Your task to perform on an android device: Go to CNN.com Image 0: 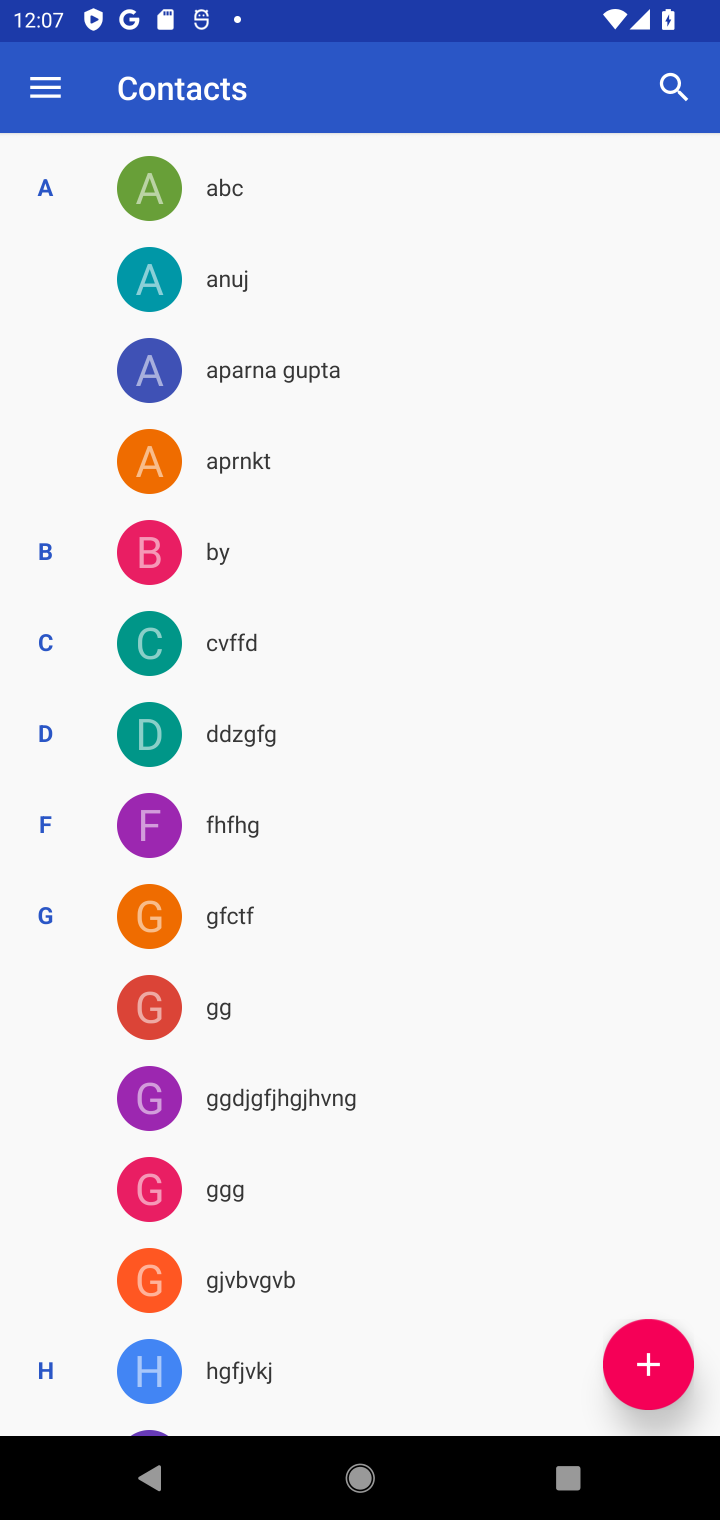
Step 0: press home button
Your task to perform on an android device: Go to CNN.com Image 1: 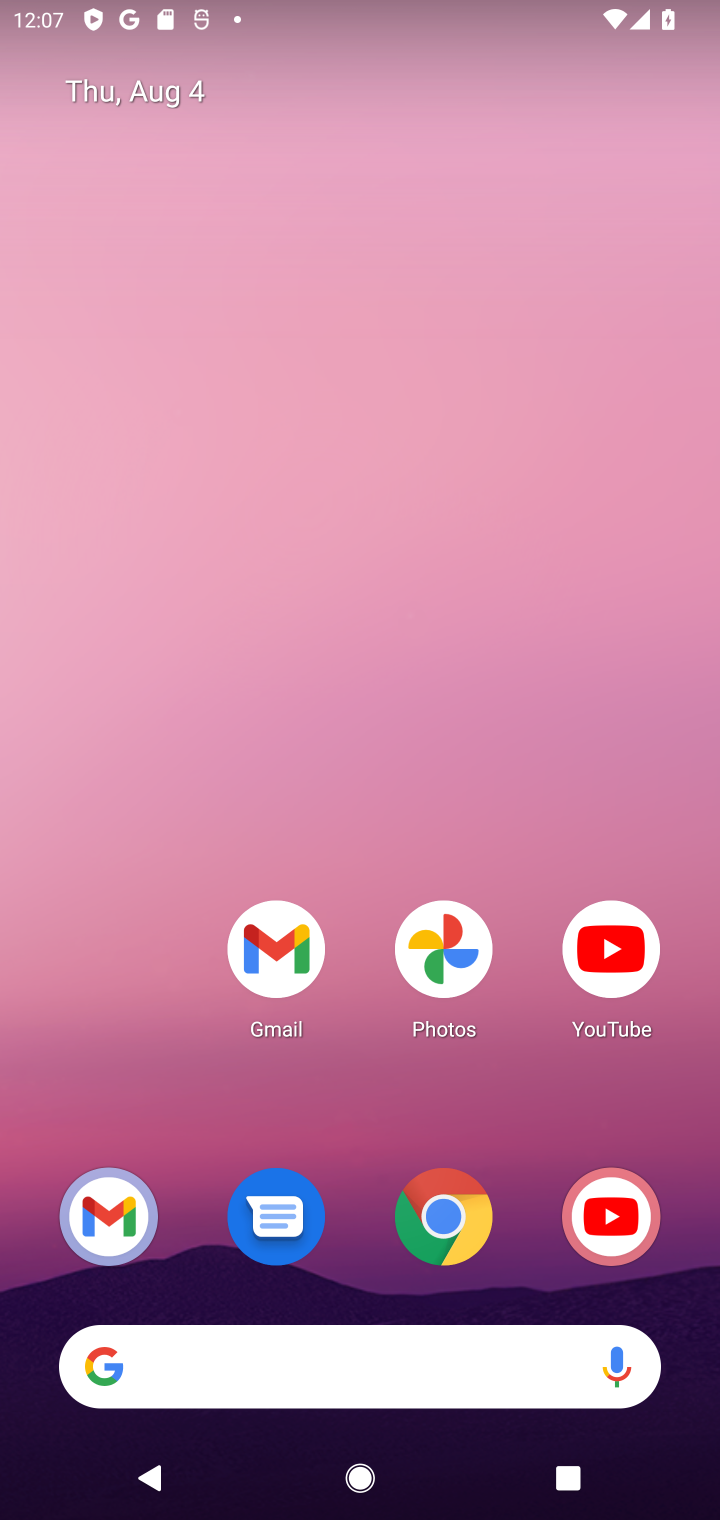
Step 1: drag from (138, 1045) to (116, 560)
Your task to perform on an android device: Go to CNN.com Image 2: 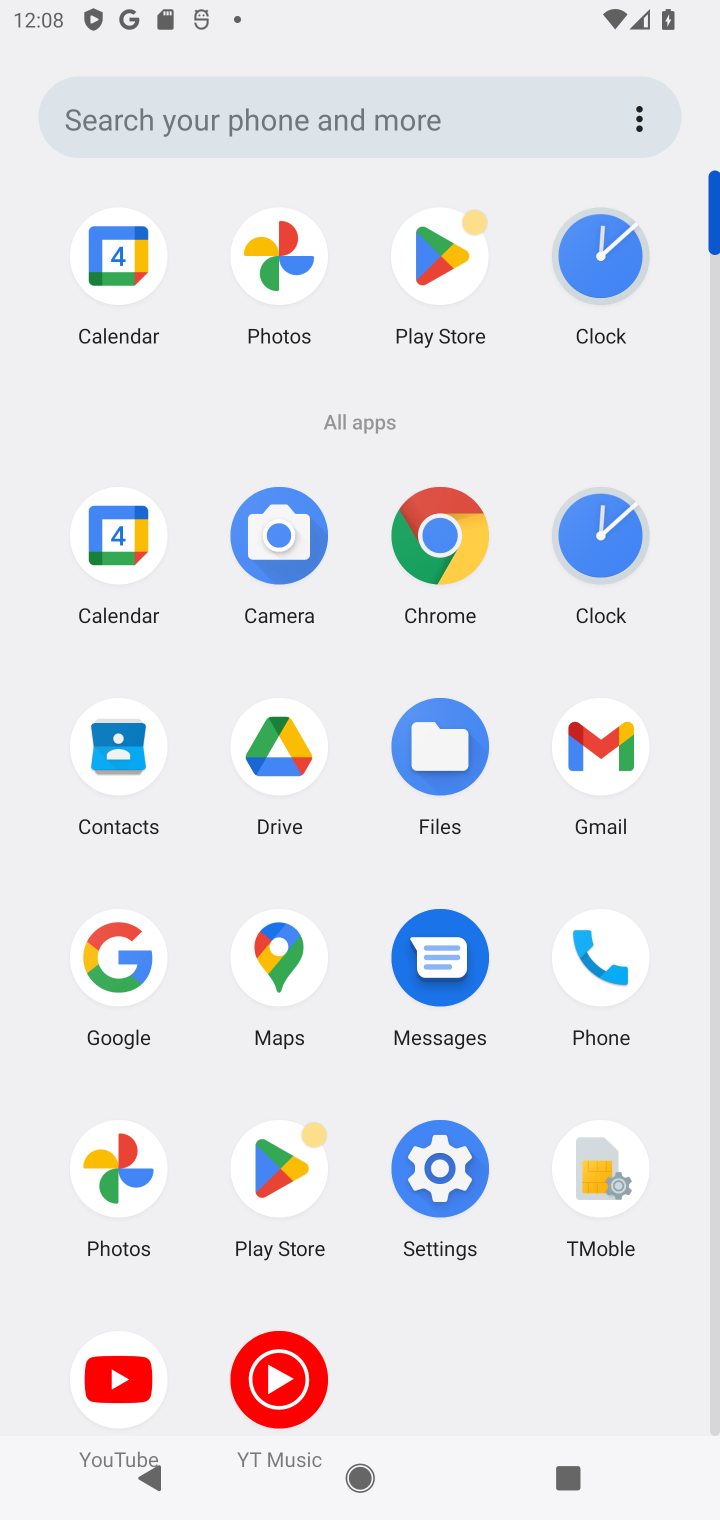
Step 2: click (437, 545)
Your task to perform on an android device: Go to CNN.com Image 3: 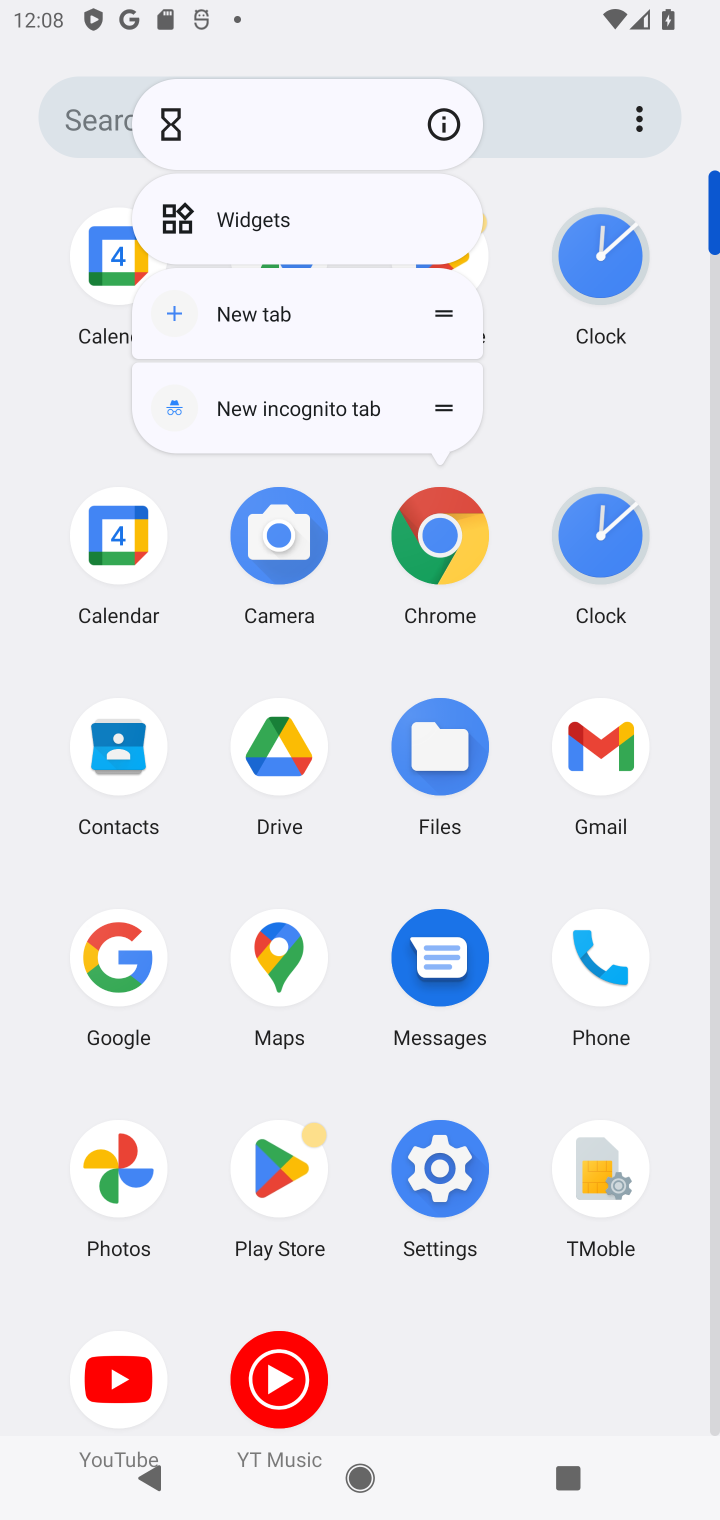
Step 3: click (110, 940)
Your task to perform on an android device: Go to CNN.com Image 4: 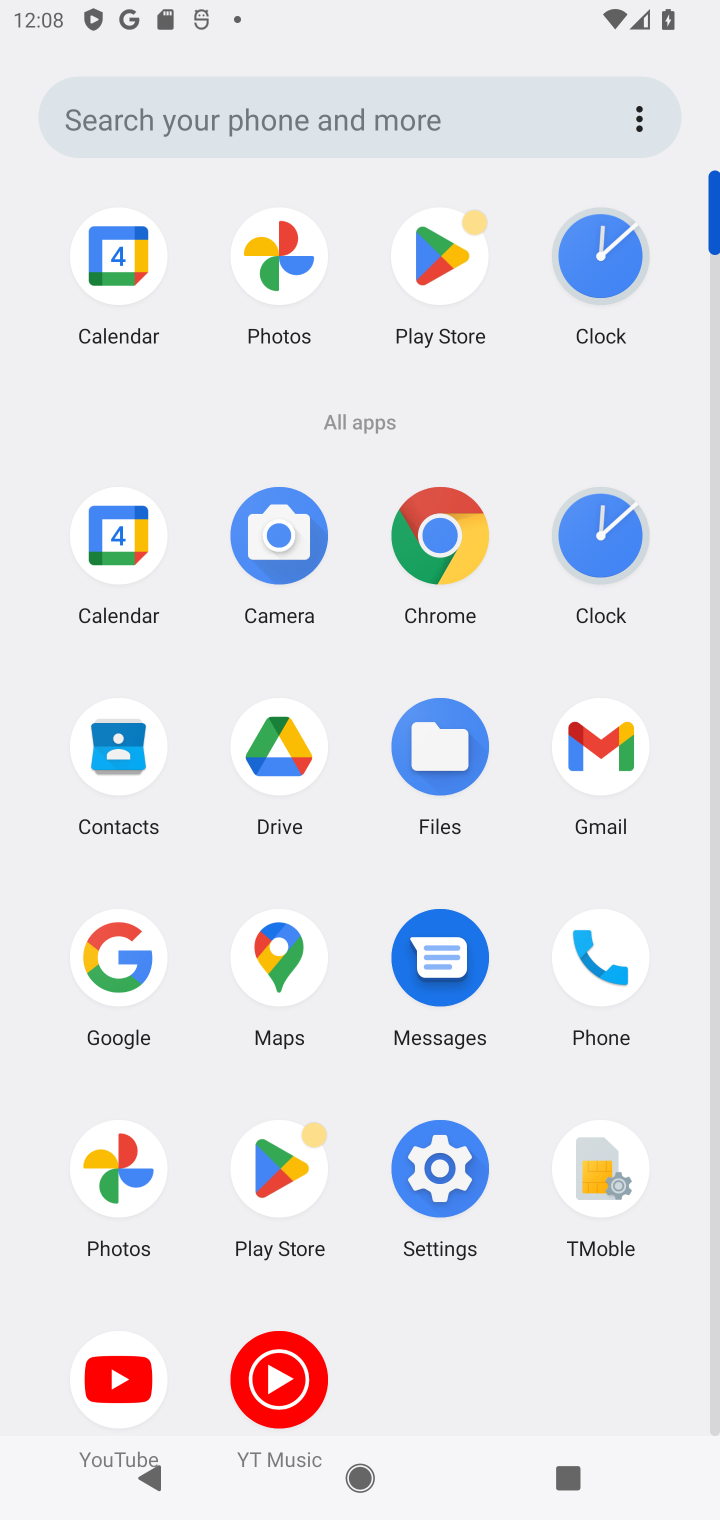
Step 4: click (100, 957)
Your task to perform on an android device: Go to CNN.com Image 5: 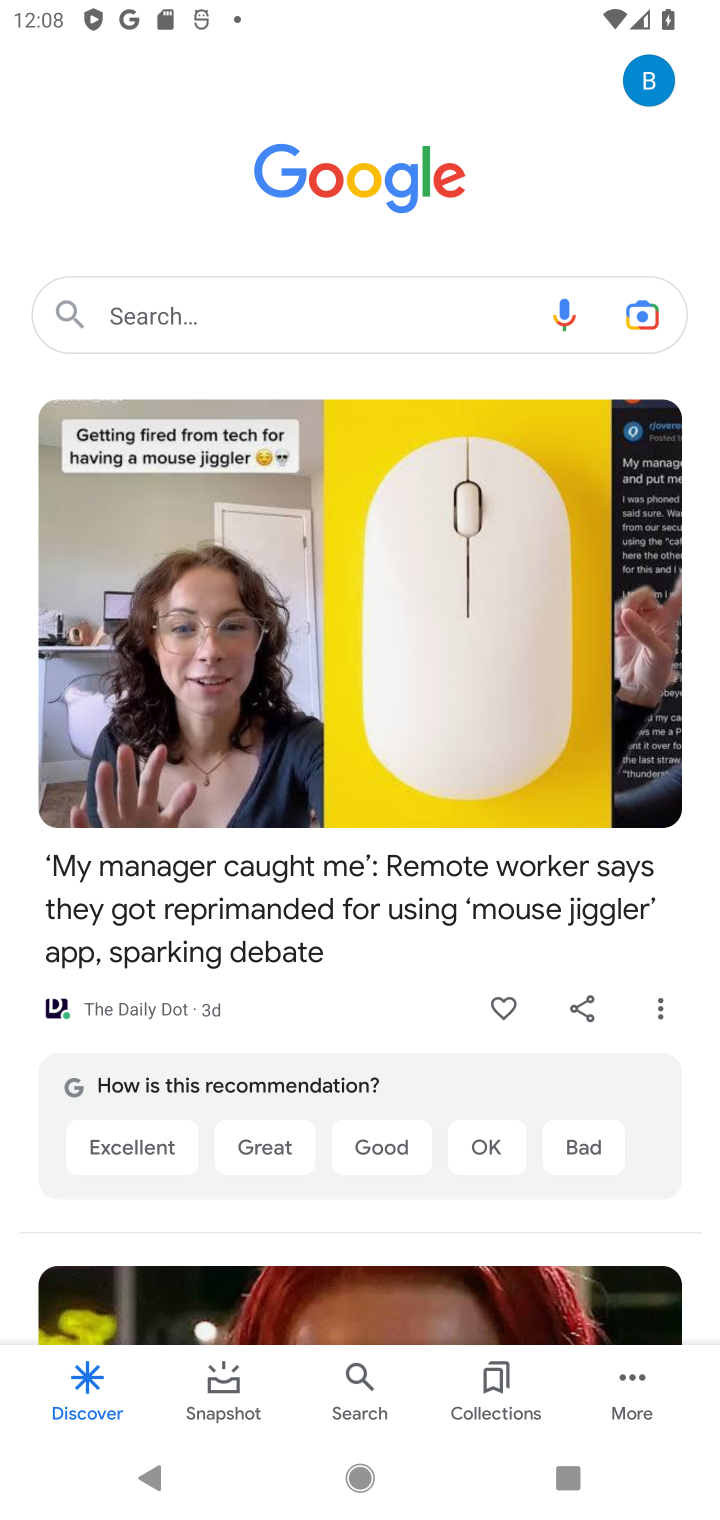
Step 5: click (274, 297)
Your task to perform on an android device: Go to CNN.com Image 6: 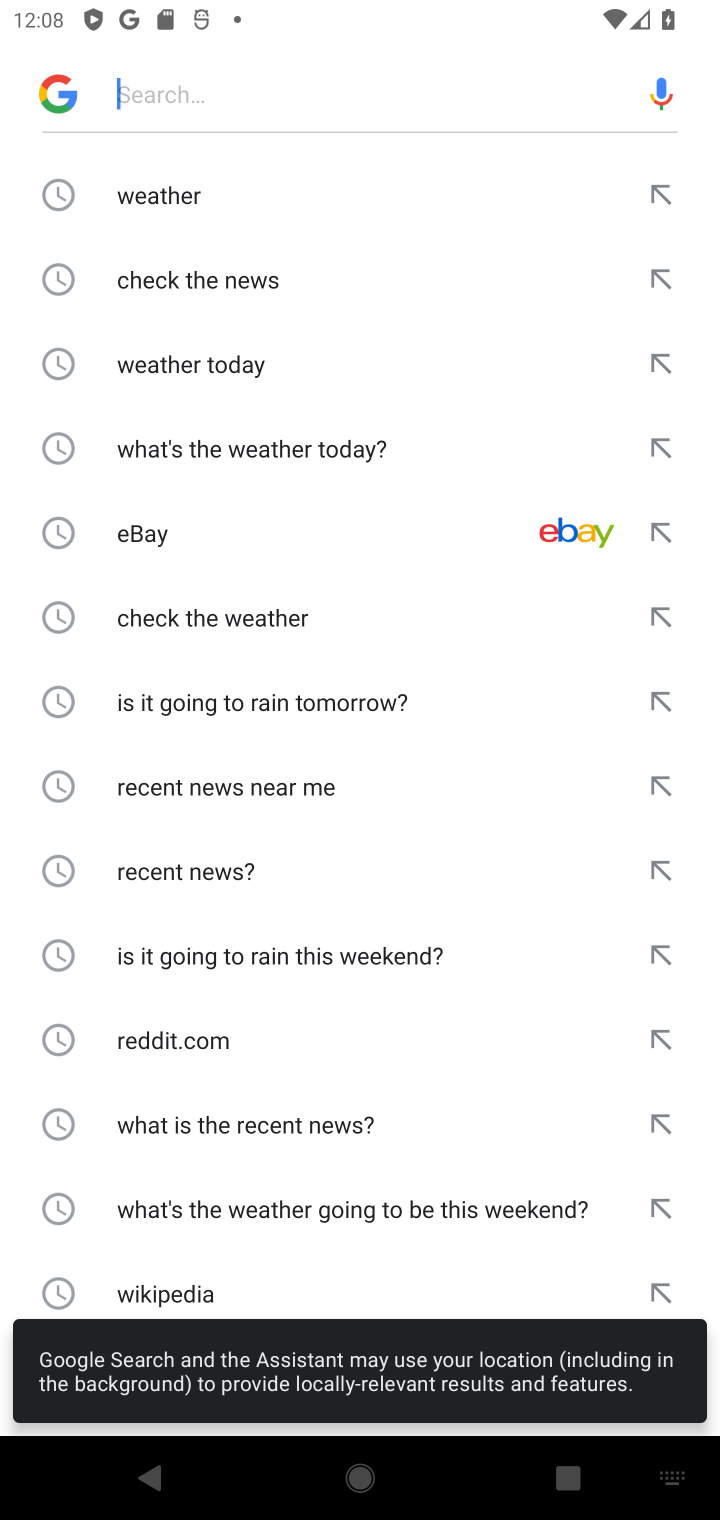
Step 6: type "CNN.com"
Your task to perform on an android device: Go to CNN.com Image 7: 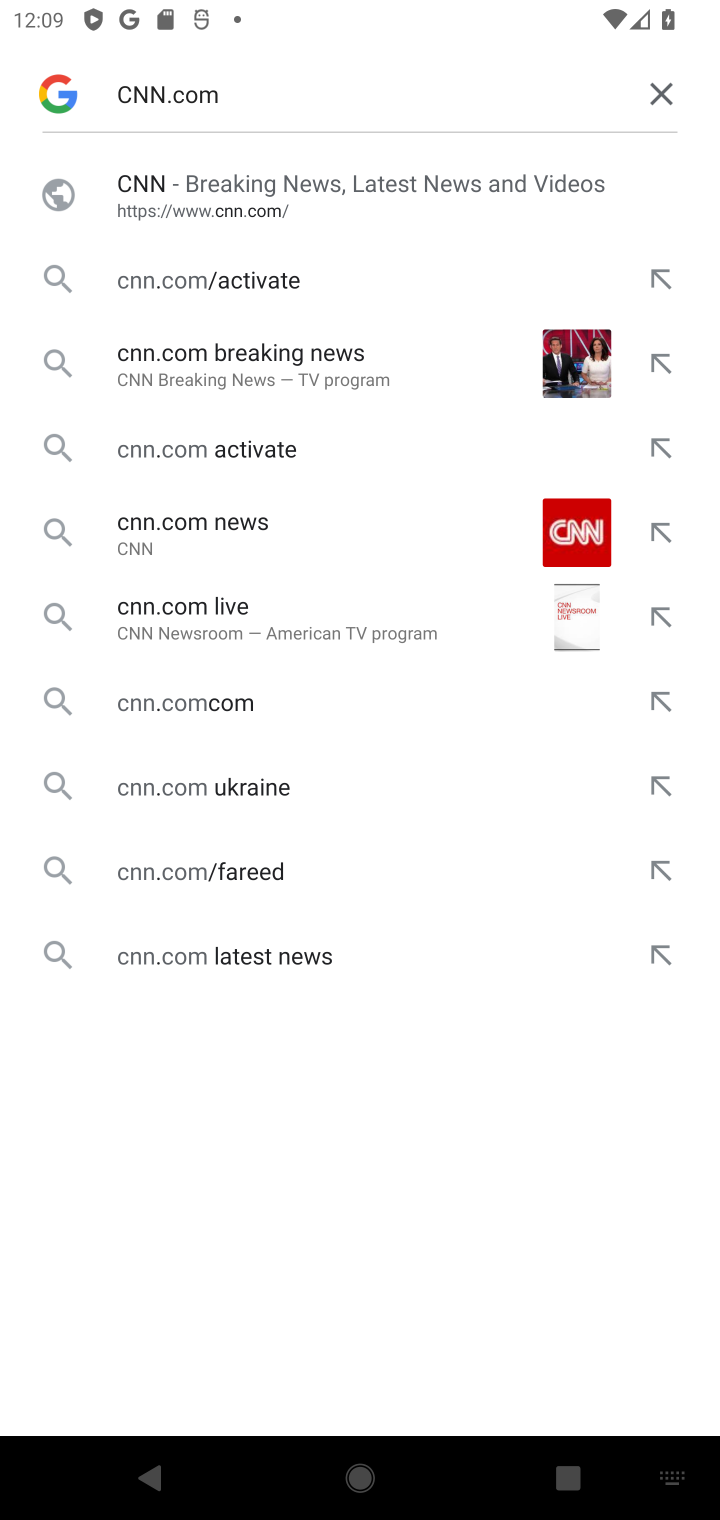
Step 7: press enter
Your task to perform on an android device: Go to CNN.com Image 8: 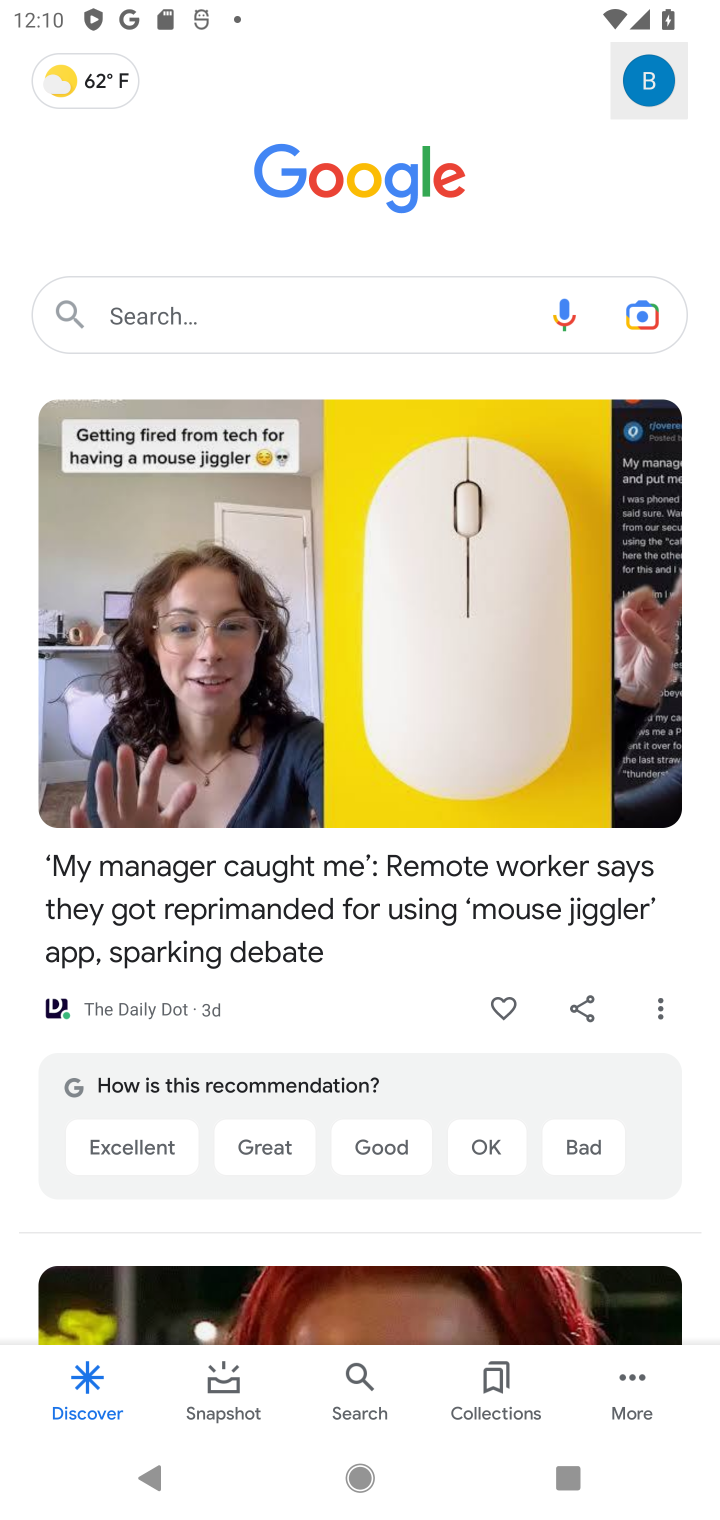
Step 8: task complete